Your task to perform on an android device: Search for hotels in Austin Image 0: 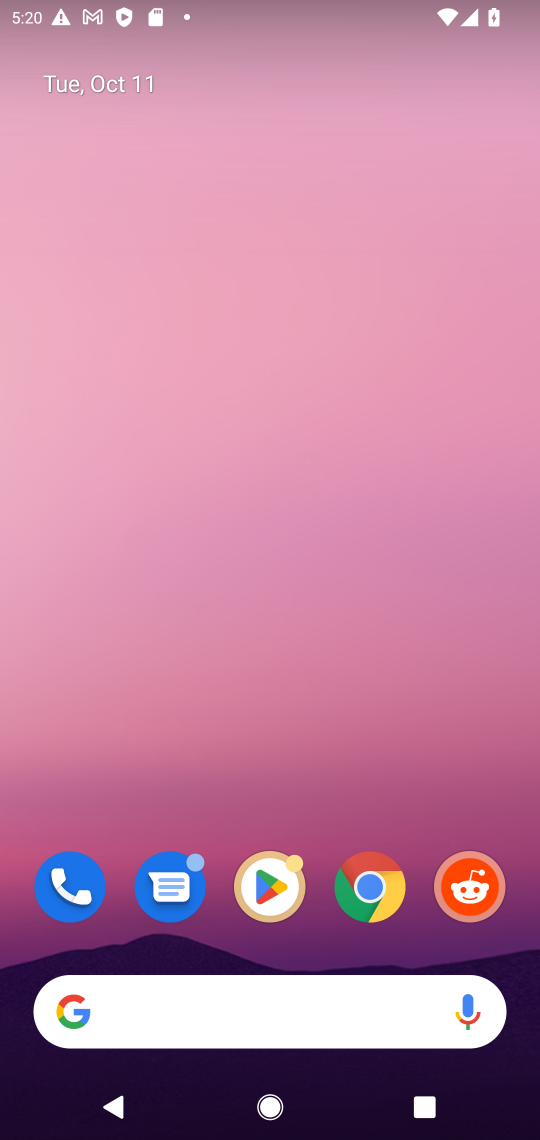
Step 0: press home button
Your task to perform on an android device: Search for hotels in Austin Image 1: 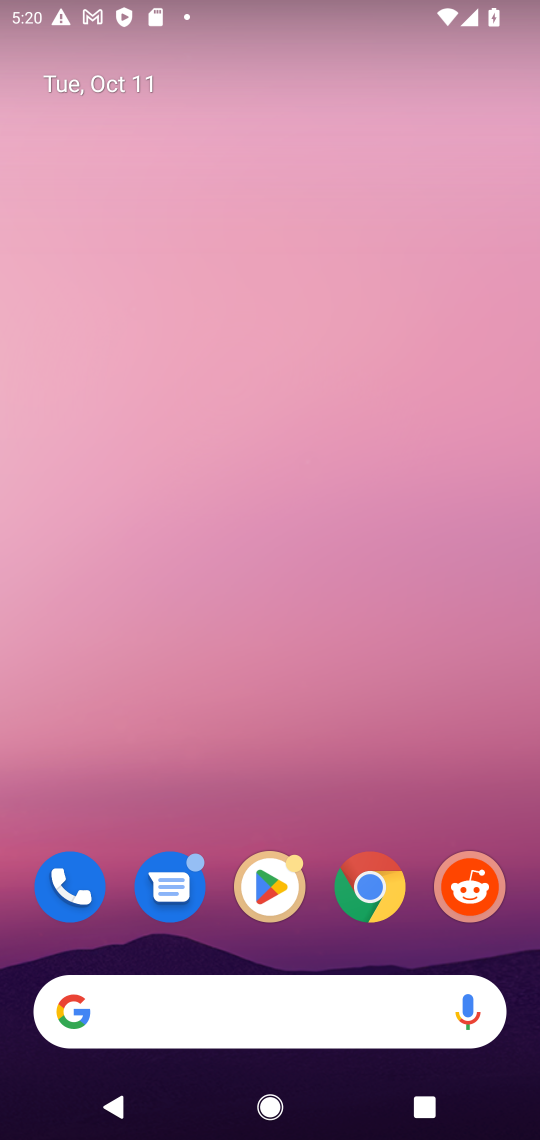
Step 1: click (269, 1022)
Your task to perform on an android device: Search for hotels in Austin Image 2: 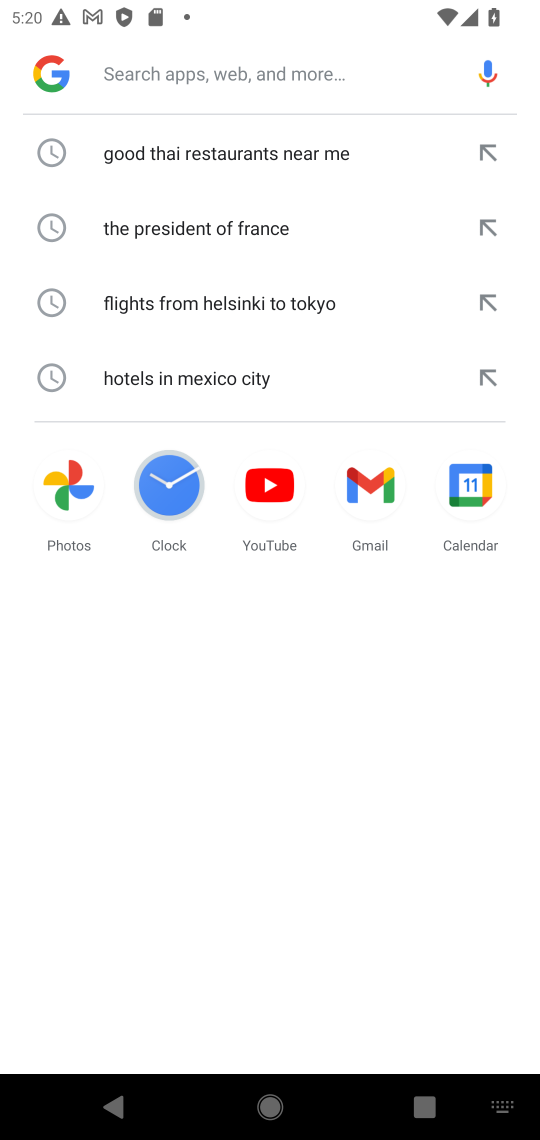
Step 2: type " hotels in Austin"
Your task to perform on an android device: Search for hotels in Austin Image 3: 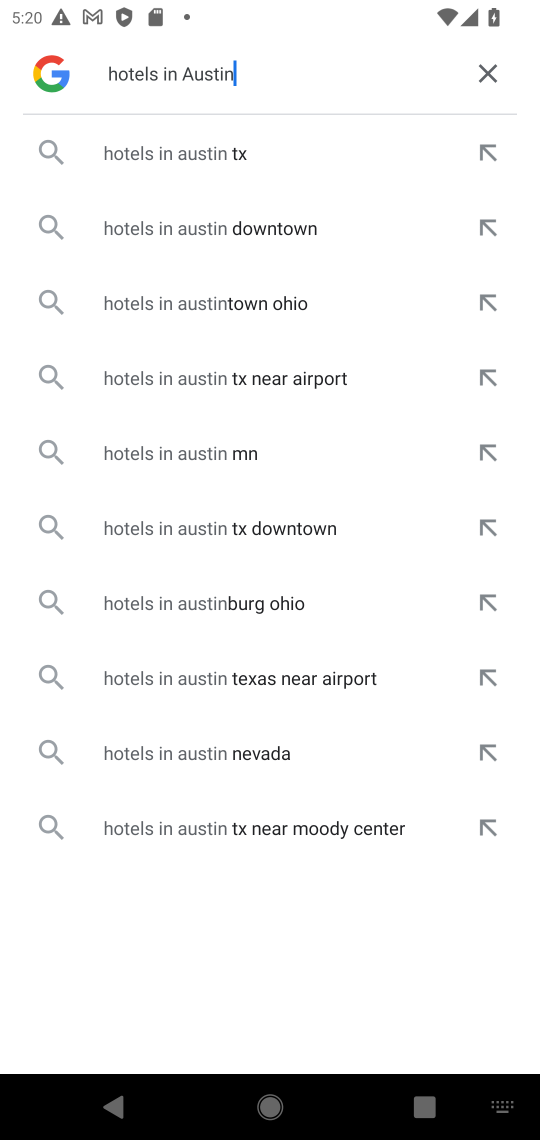
Step 3: click (197, 147)
Your task to perform on an android device: Search for hotels in Austin Image 4: 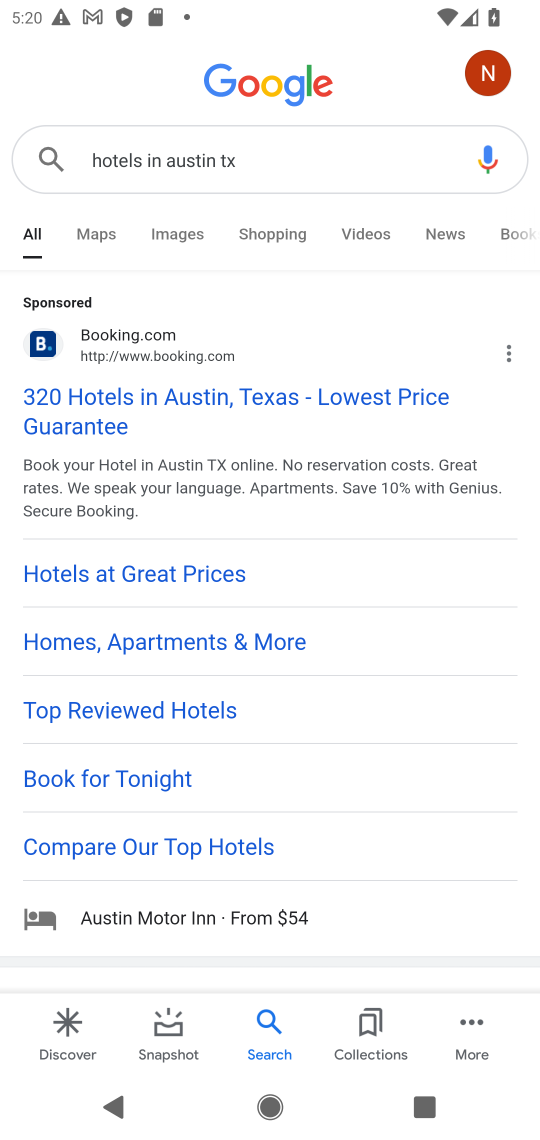
Step 4: click (164, 935)
Your task to perform on an android device: Search for hotels in Austin Image 5: 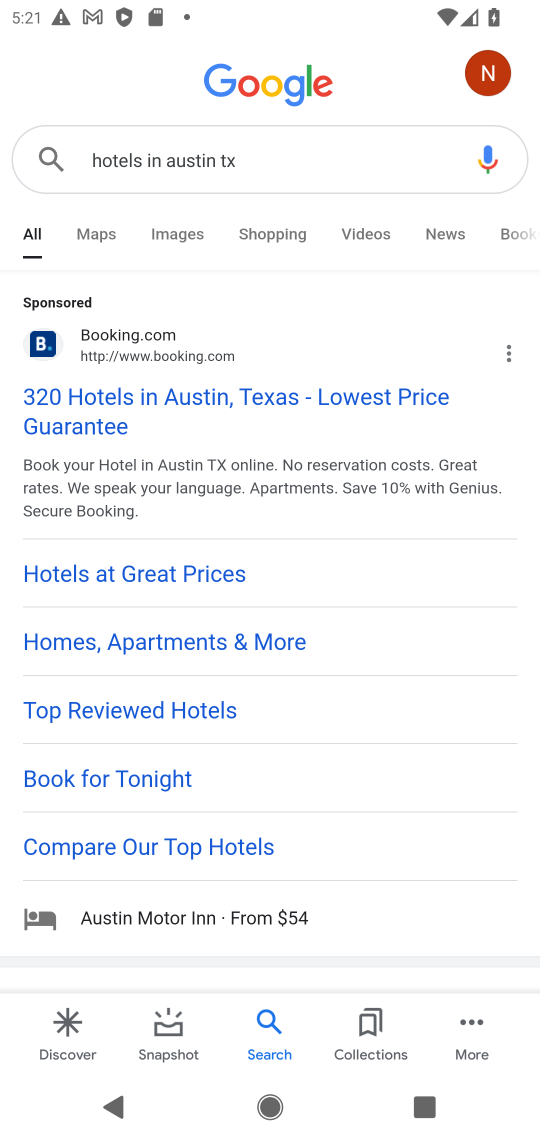
Step 5: drag from (167, 921) to (213, 576)
Your task to perform on an android device: Search for hotels in Austin Image 6: 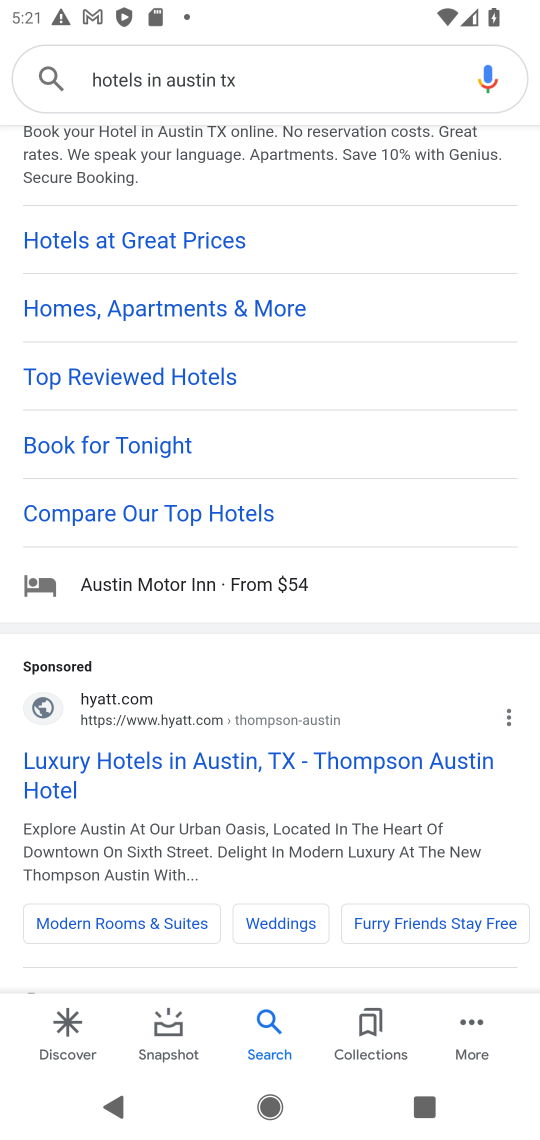
Step 6: drag from (186, 773) to (191, 438)
Your task to perform on an android device: Search for hotels in Austin Image 7: 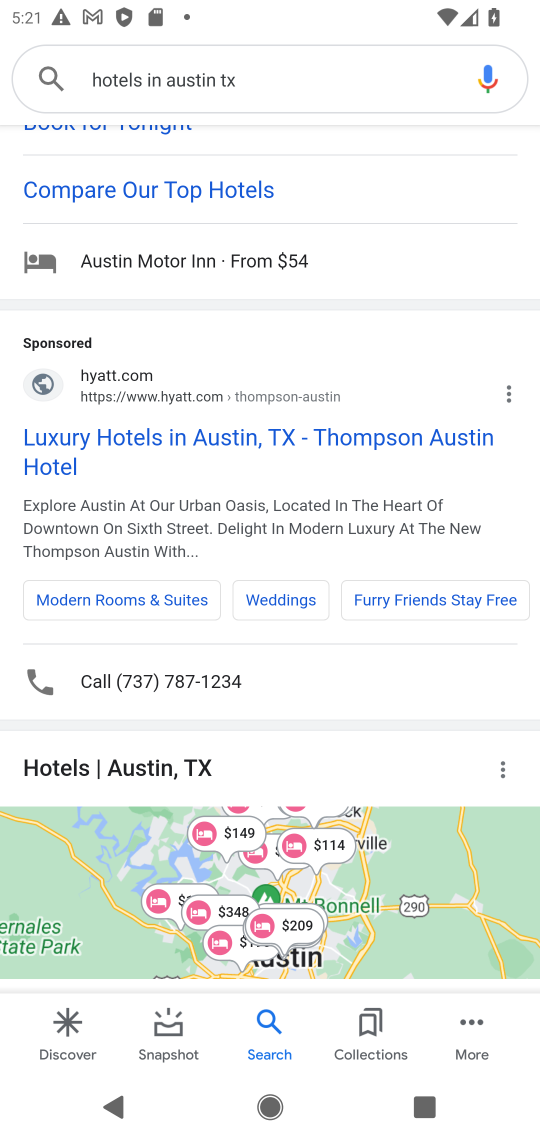
Step 7: drag from (280, 672) to (288, 405)
Your task to perform on an android device: Search for hotels in Austin Image 8: 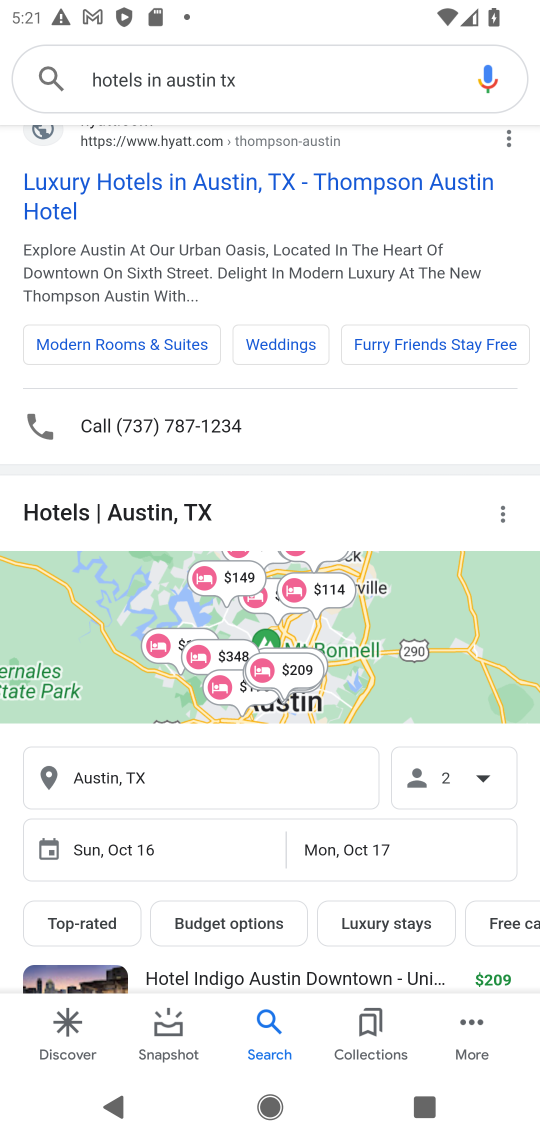
Step 8: click (478, 379)
Your task to perform on an android device: Search for hotels in Austin Image 9: 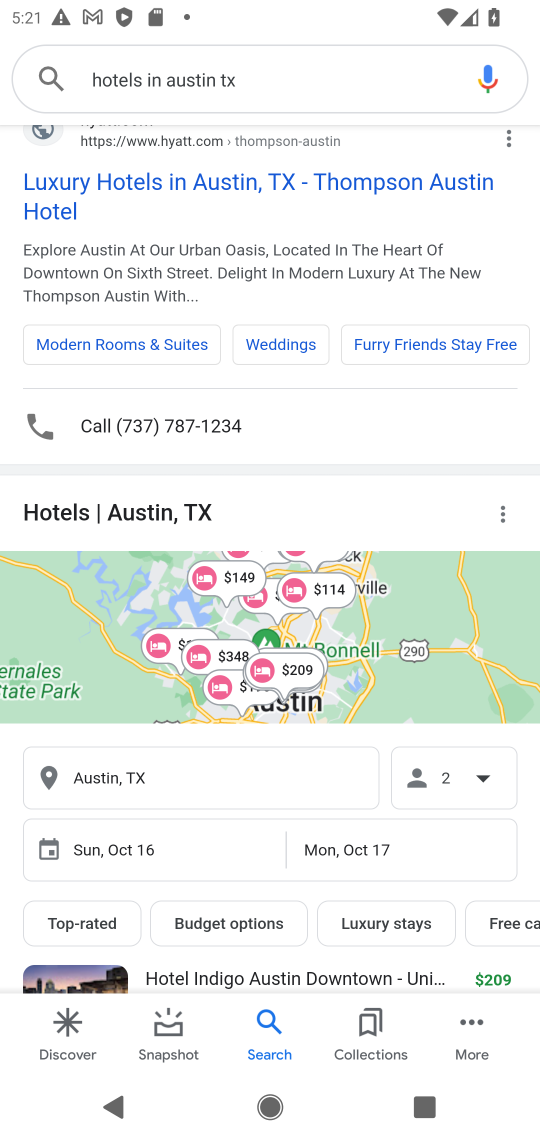
Step 9: task complete